Your task to perform on an android device: change your default location settings in chrome Image 0: 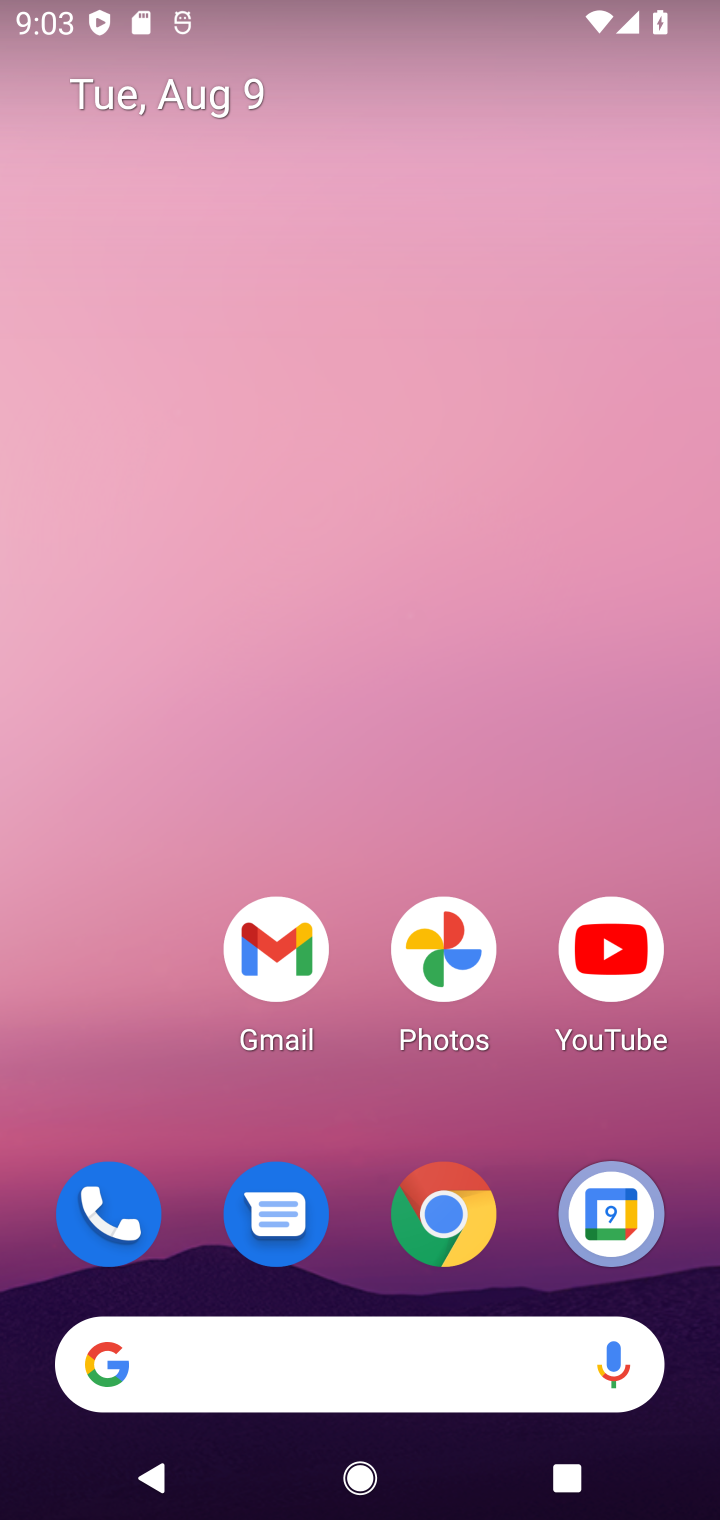
Step 0: click (422, 1214)
Your task to perform on an android device: change your default location settings in chrome Image 1: 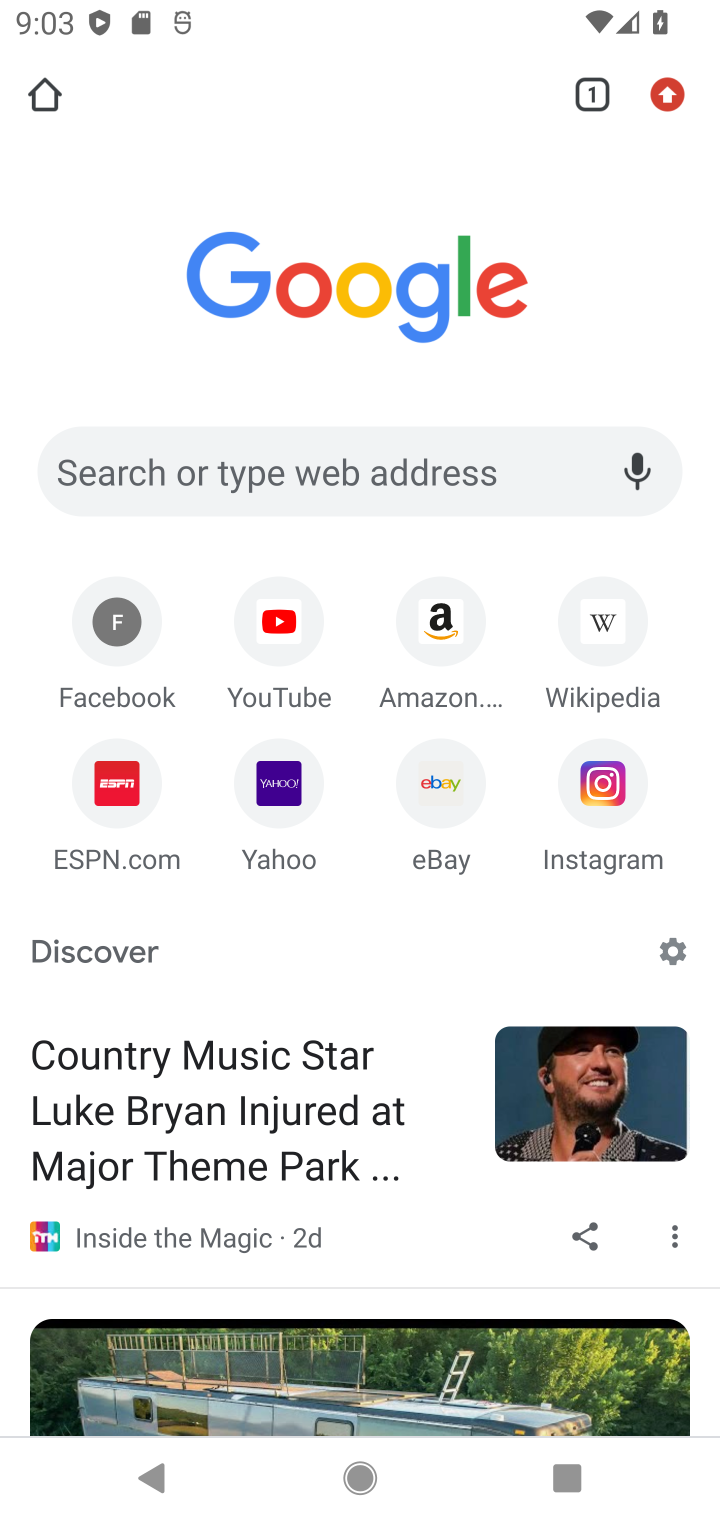
Step 1: click (678, 96)
Your task to perform on an android device: change your default location settings in chrome Image 2: 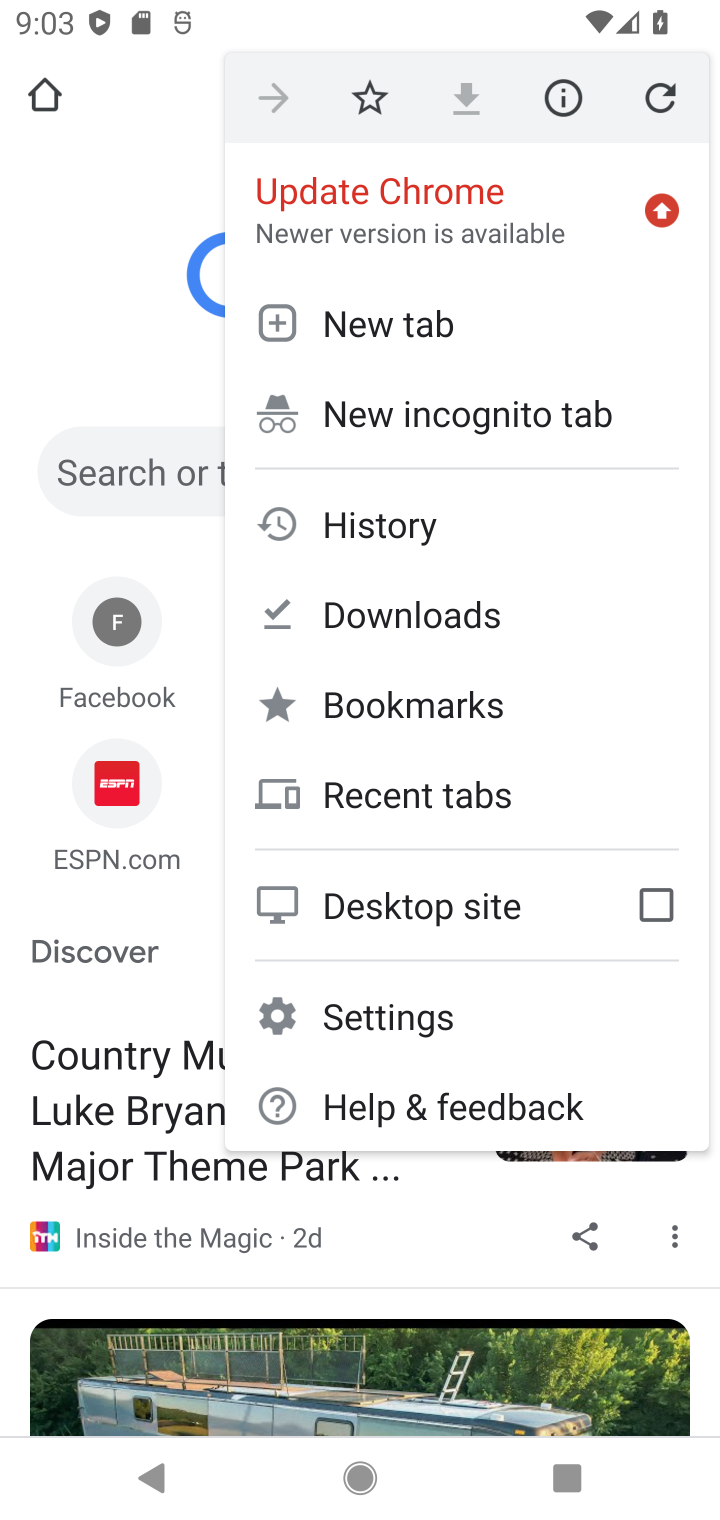
Step 2: click (379, 1009)
Your task to perform on an android device: change your default location settings in chrome Image 3: 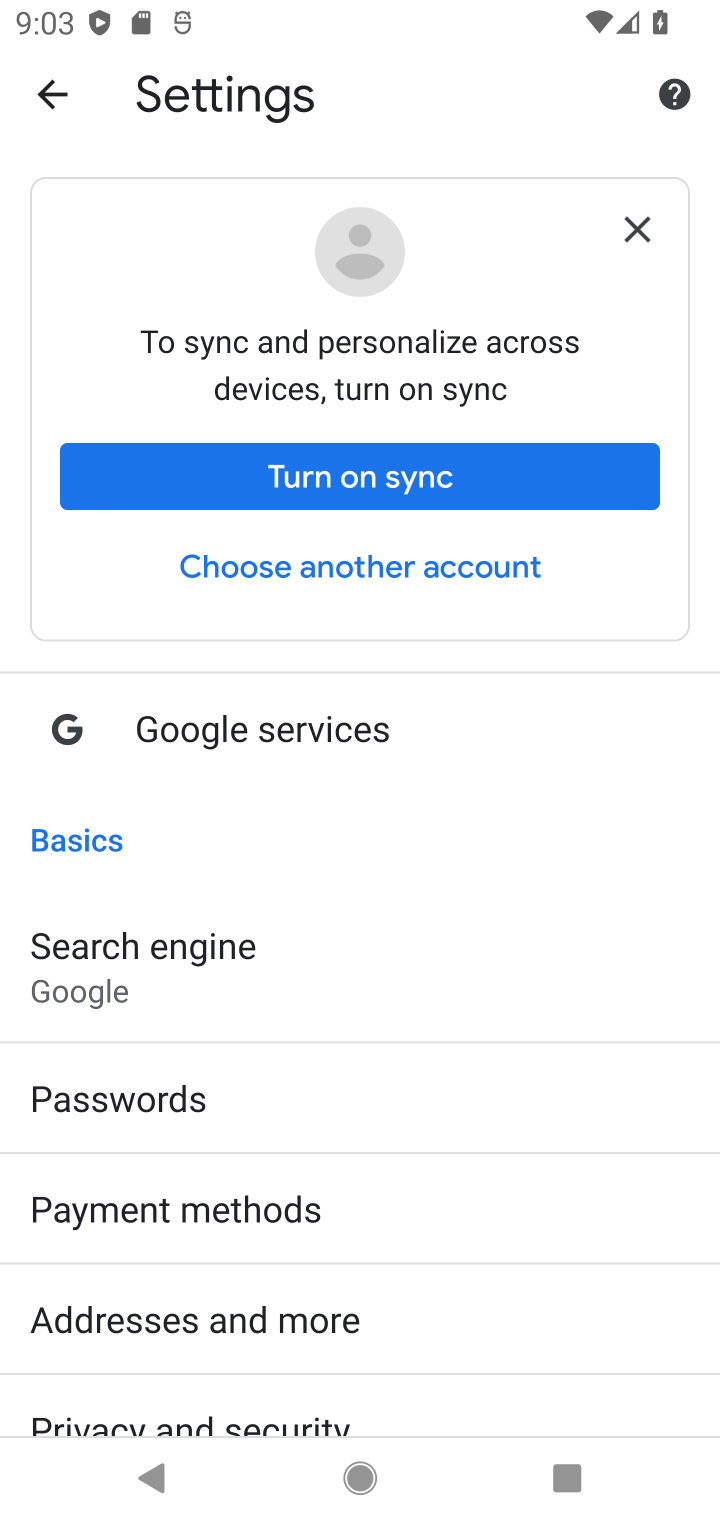
Step 3: click (643, 233)
Your task to perform on an android device: change your default location settings in chrome Image 4: 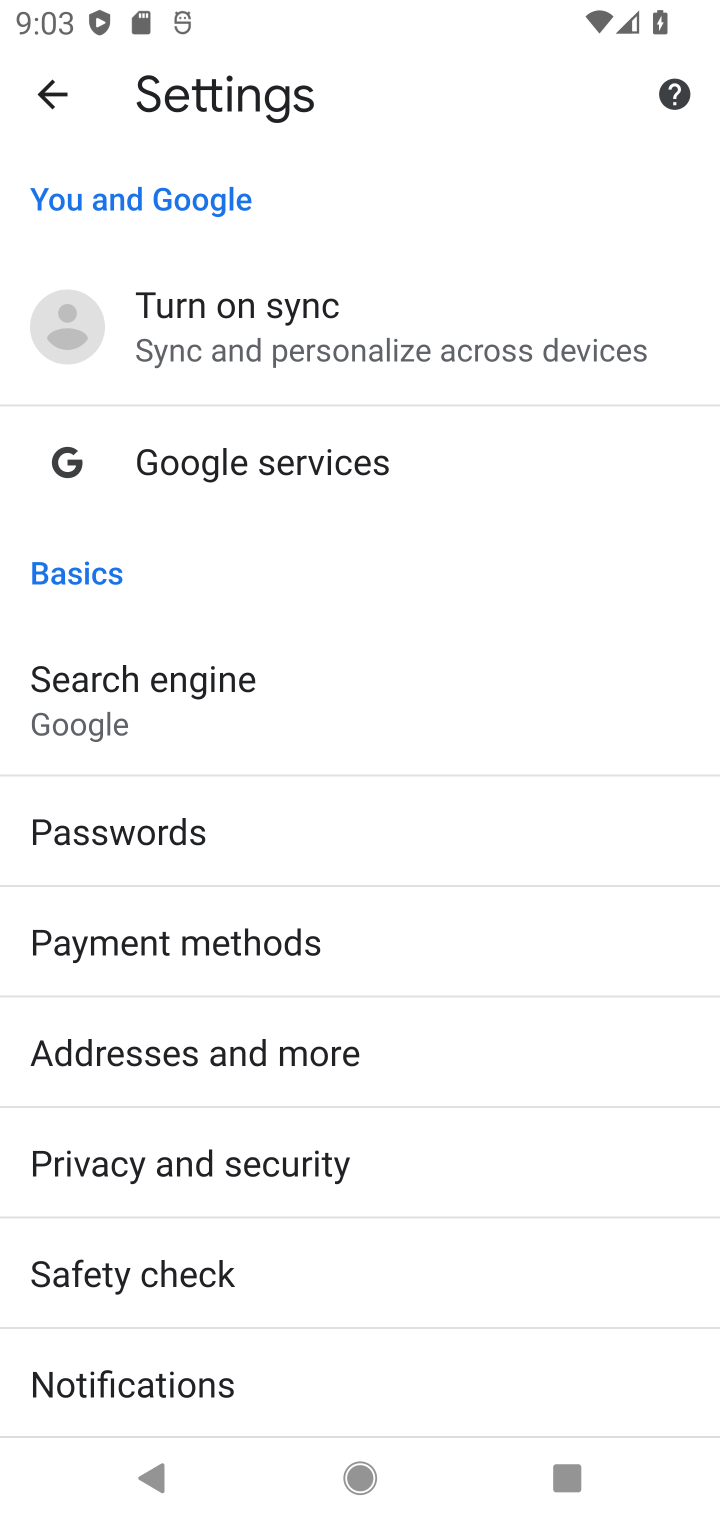
Step 4: drag from (357, 1334) to (332, 857)
Your task to perform on an android device: change your default location settings in chrome Image 5: 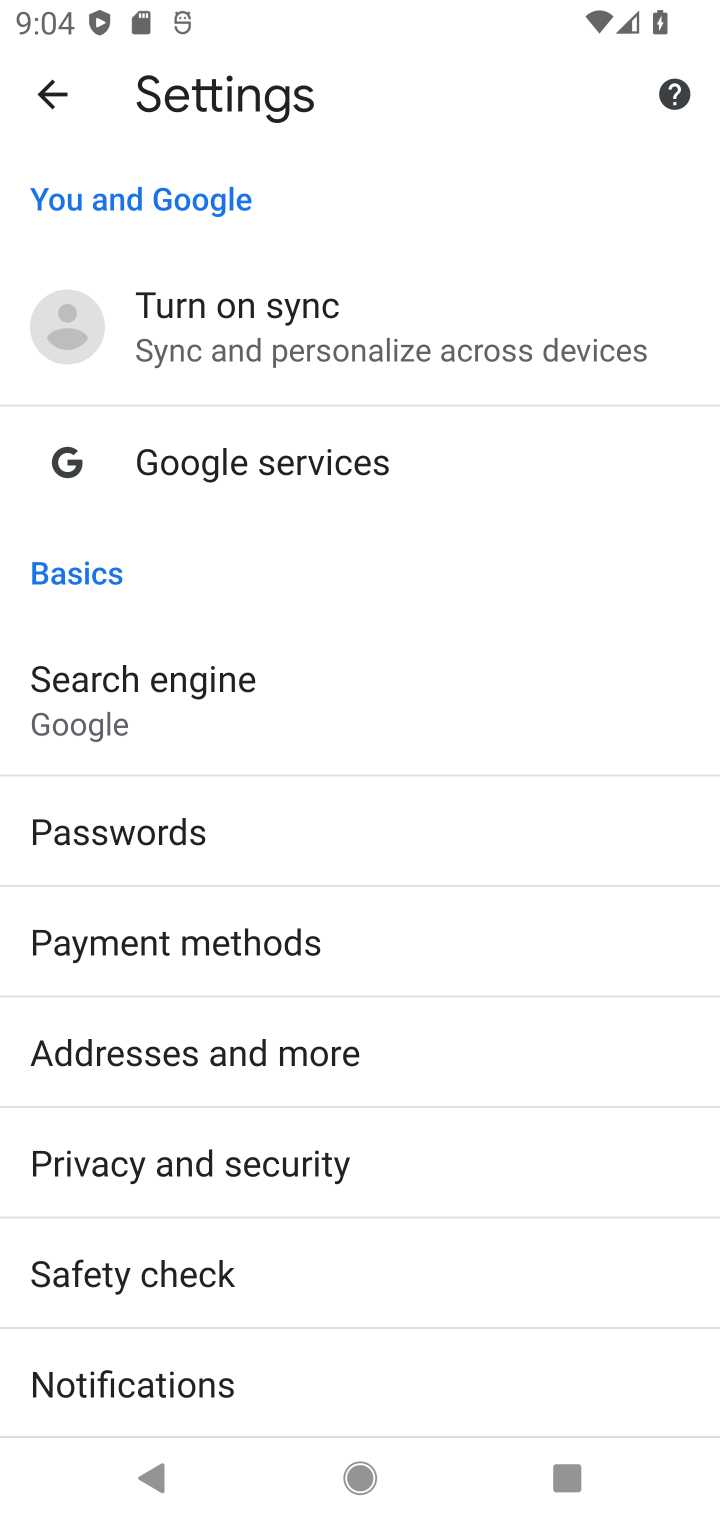
Step 5: drag from (422, 1343) to (413, 249)
Your task to perform on an android device: change your default location settings in chrome Image 6: 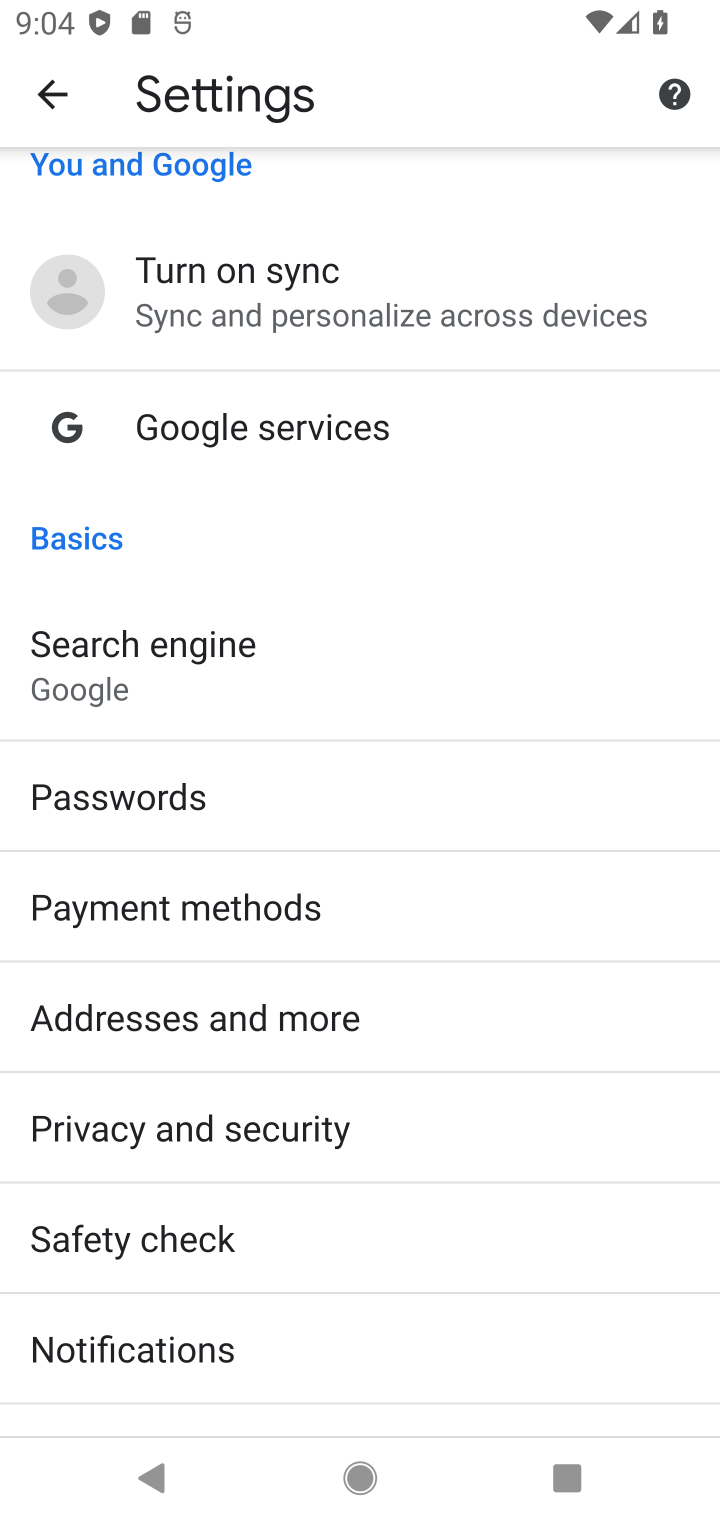
Step 6: drag from (493, 1325) to (346, 378)
Your task to perform on an android device: change your default location settings in chrome Image 7: 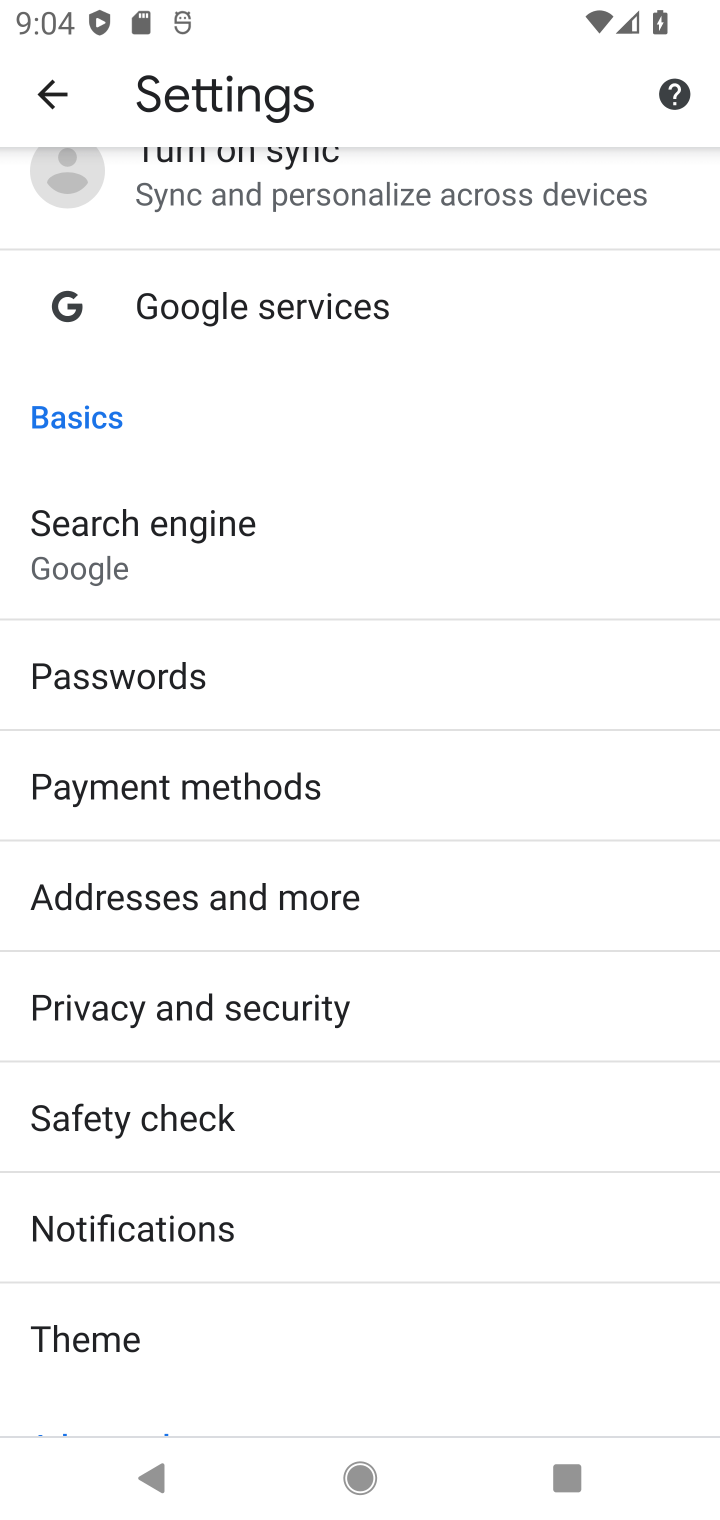
Step 7: drag from (508, 1193) to (542, 16)
Your task to perform on an android device: change your default location settings in chrome Image 8: 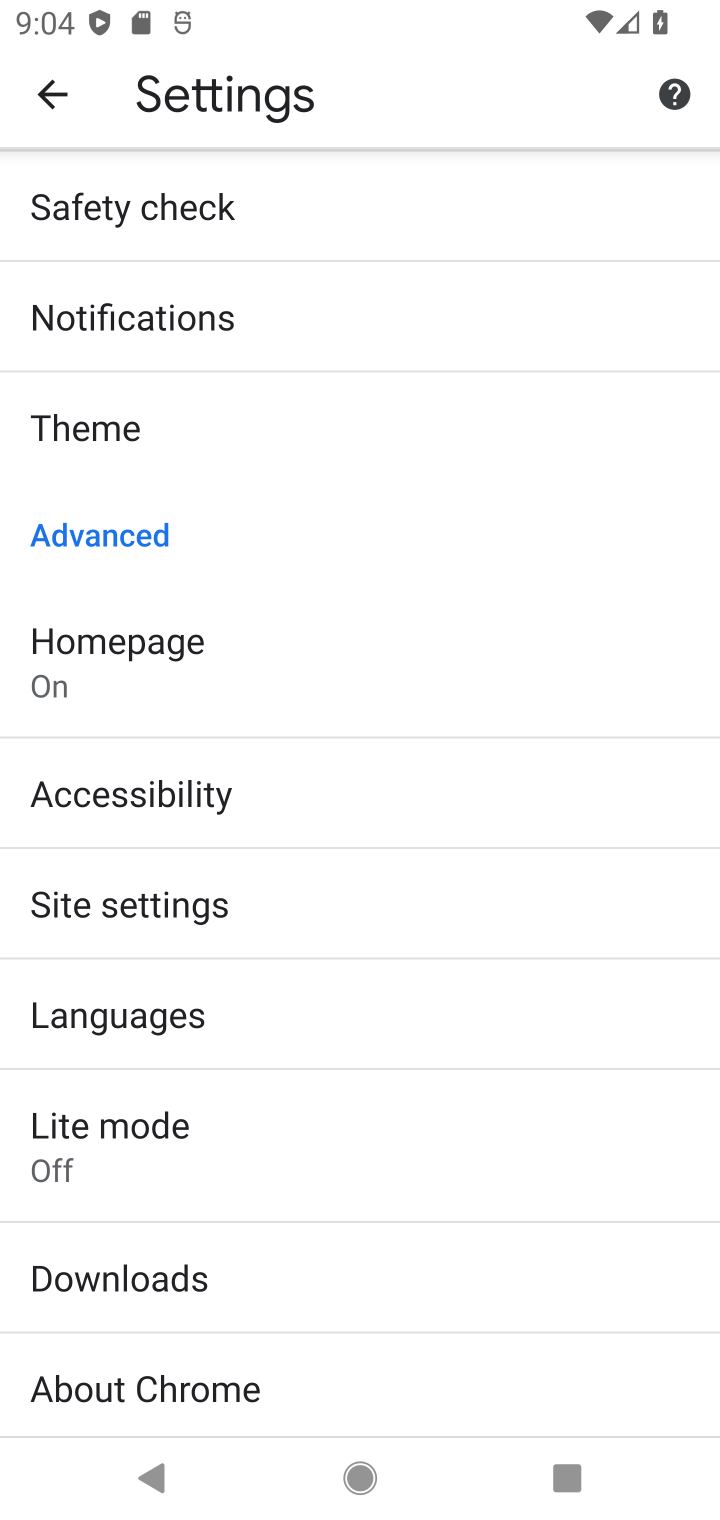
Step 8: click (166, 903)
Your task to perform on an android device: change your default location settings in chrome Image 9: 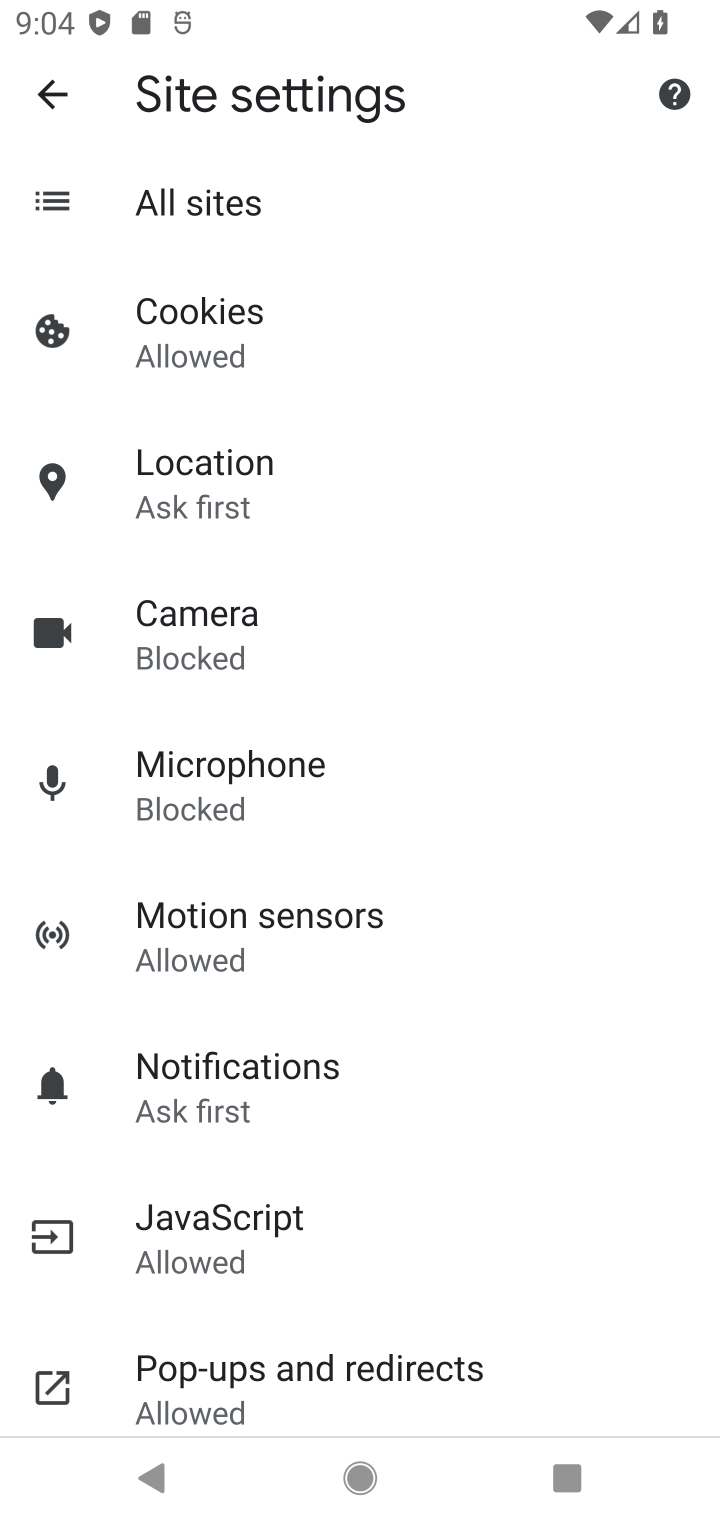
Step 9: click (172, 497)
Your task to perform on an android device: change your default location settings in chrome Image 10: 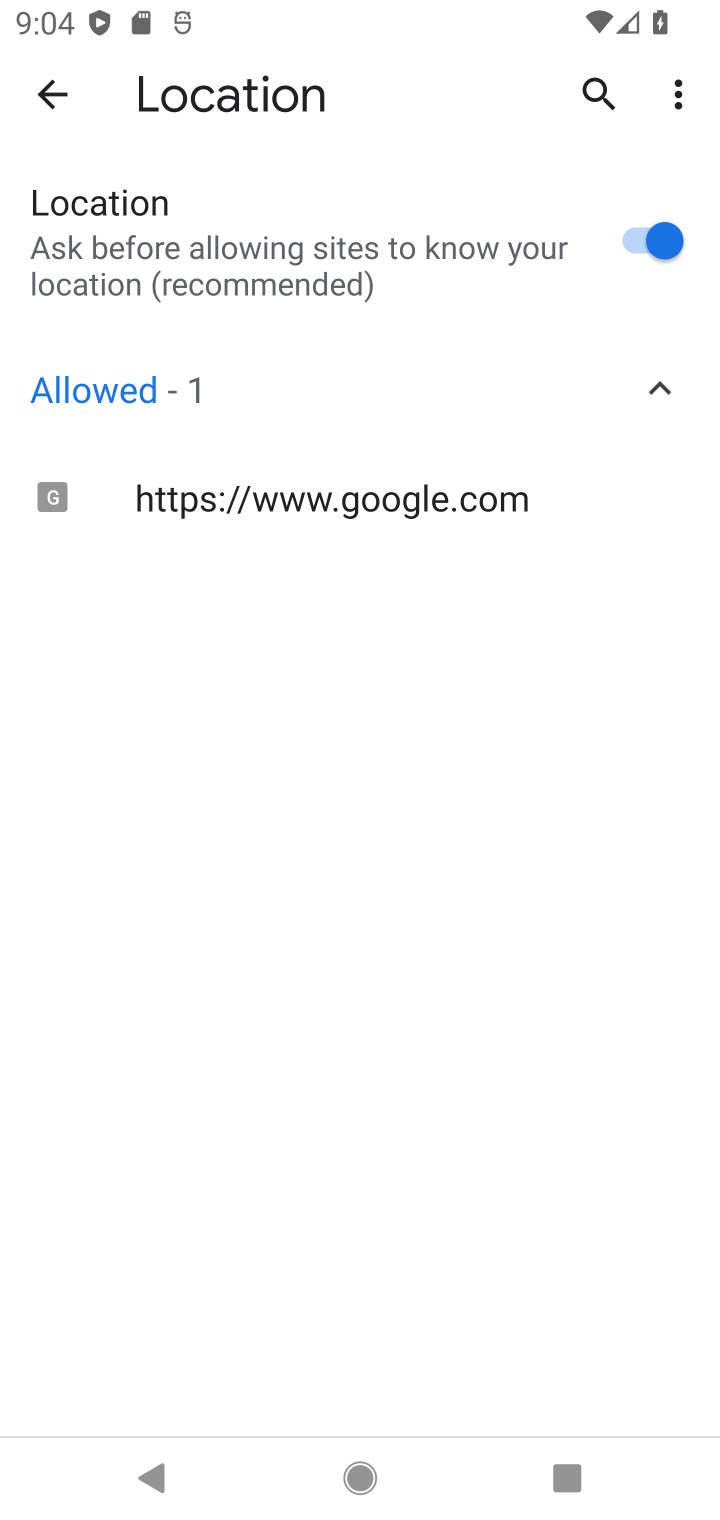
Step 10: task complete